Your task to perform on an android device: Open Youtube and go to the subscriptions tab Image 0: 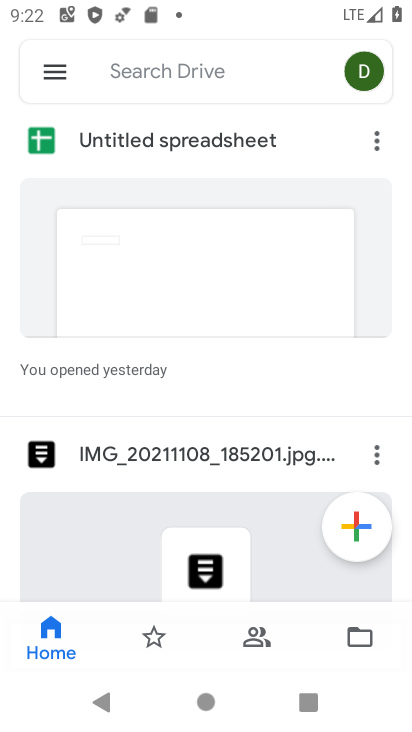
Step 0: press home button
Your task to perform on an android device: Open Youtube and go to the subscriptions tab Image 1: 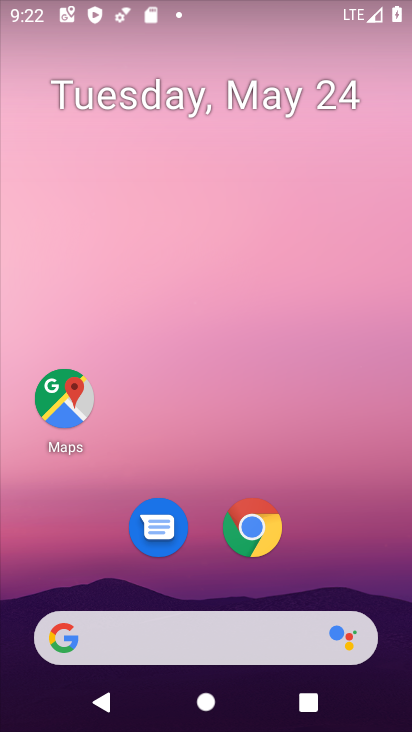
Step 1: drag from (204, 276) to (226, 140)
Your task to perform on an android device: Open Youtube and go to the subscriptions tab Image 2: 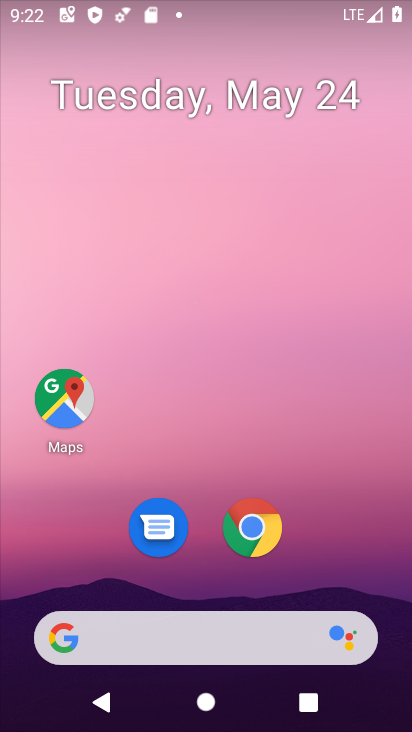
Step 2: drag from (211, 447) to (220, 3)
Your task to perform on an android device: Open Youtube and go to the subscriptions tab Image 3: 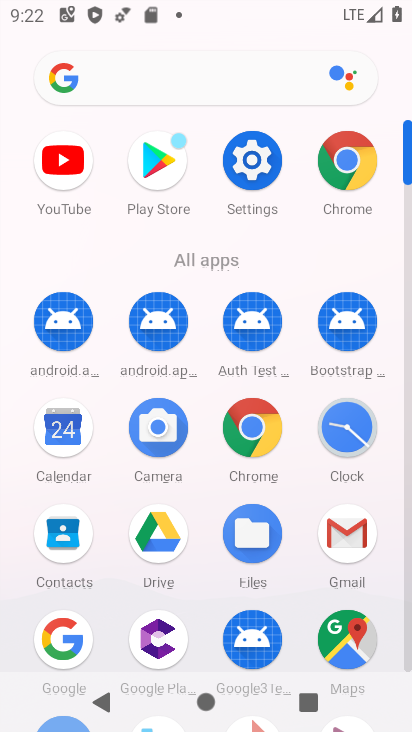
Step 3: click (62, 167)
Your task to perform on an android device: Open Youtube and go to the subscriptions tab Image 4: 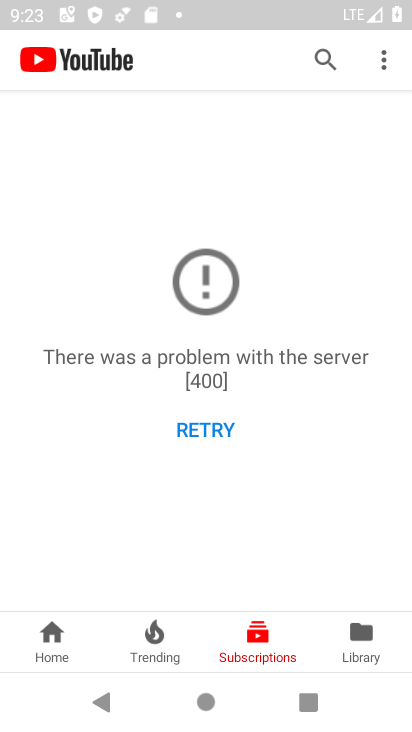
Step 4: task complete